Your task to perform on an android device: read, delete, or share a saved page in the chrome app Image 0: 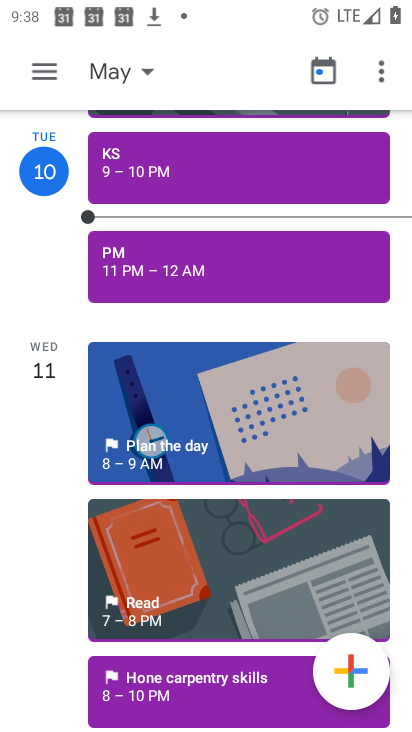
Step 0: press home button
Your task to perform on an android device: read, delete, or share a saved page in the chrome app Image 1: 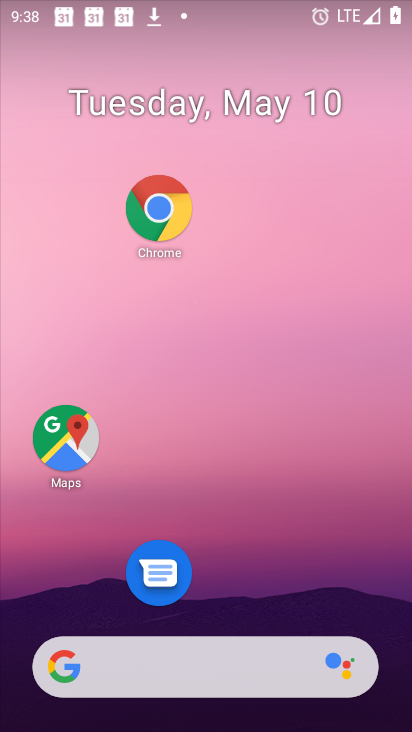
Step 1: drag from (294, 704) to (288, 237)
Your task to perform on an android device: read, delete, or share a saved page in the chrome app Image 2: 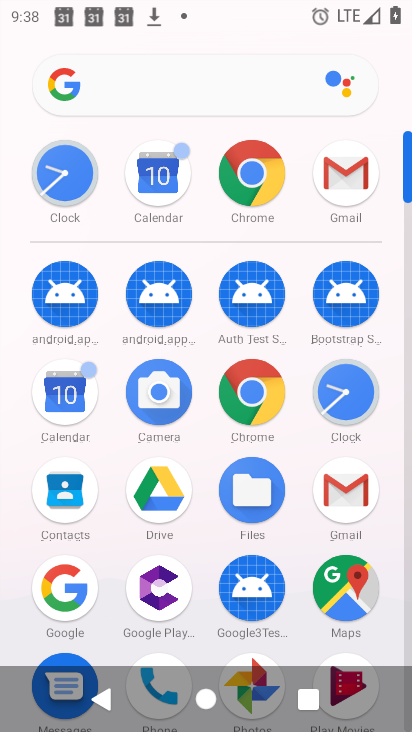
Step 2: click (245, 156)
Your task to perform on an android device: read, delete, or share a saved page in the chrome app Image 3: 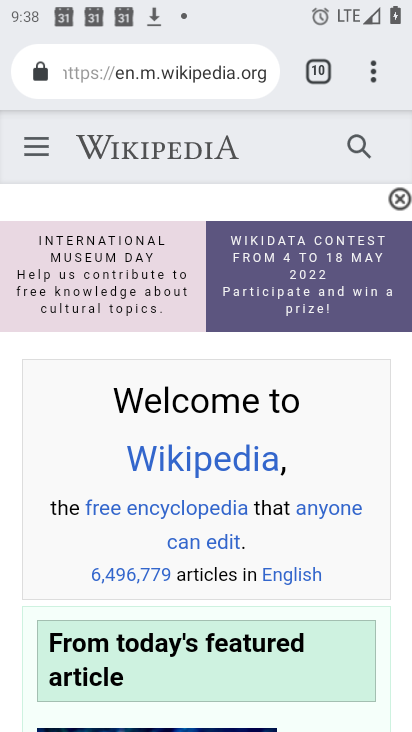
Step 3: click (373, 84)
Your task to perform on an android device: read, delete, or share a saved page in the chrome app Image 4: 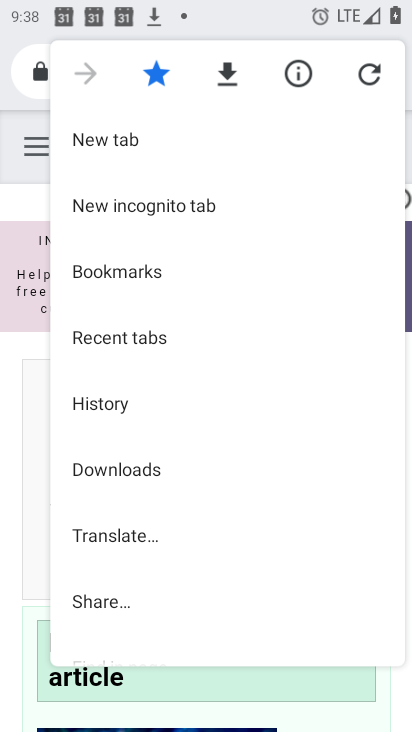
Step 4: click (131, 400)
Your task to perform on an android device: read, delete, or share a saved page in the chrome app Image 5: 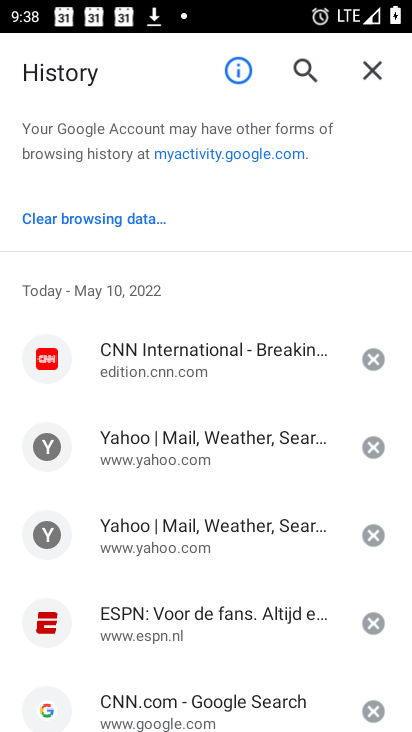
Step 5: click (115, 229)
Your task to perform on an android device: read, delete, or share a saved page in the chrome app Image 6: 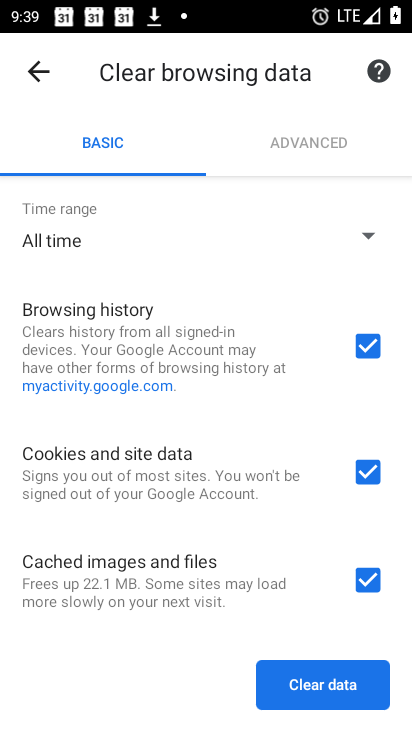
Step 6: click (333, 686)
Your task to perform on an android device: read, delete, or share a saved page in the chrome app Image 7: 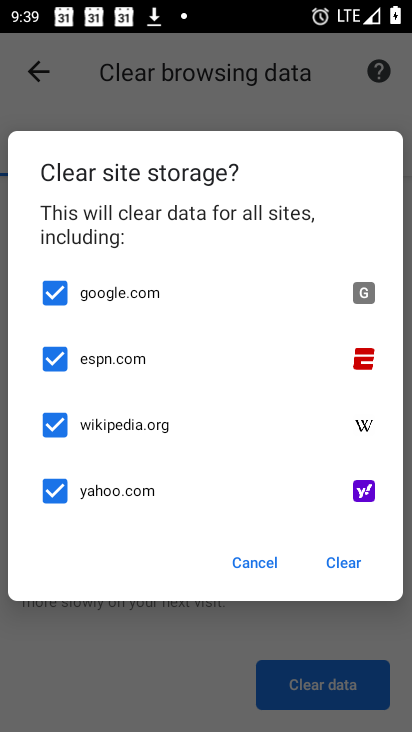
Step 7: task complete